Your task to perform on an android device: Go to eBay Image 0: 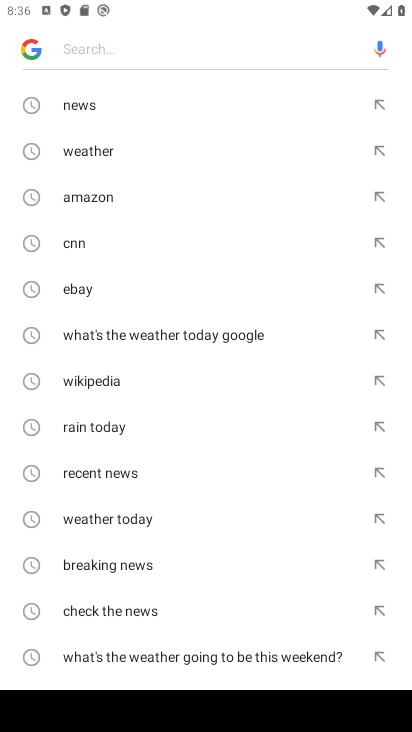
Step 0: press back button
Your task to perform on an android device: Go to eBay Image 1: 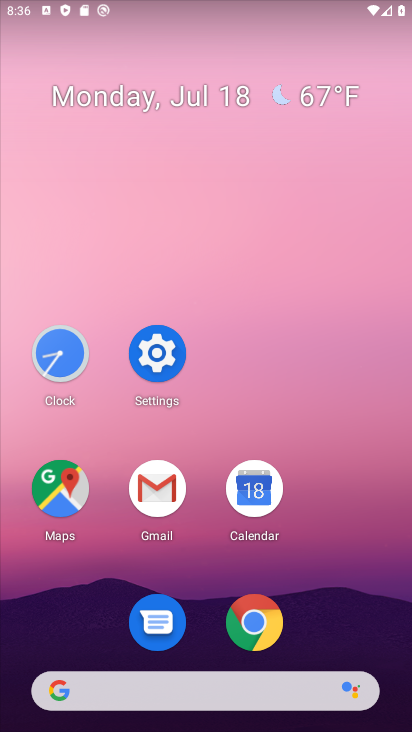
Step 1: click (246, 619)
Your task to perform on an android device: Go to eBay Image 2: 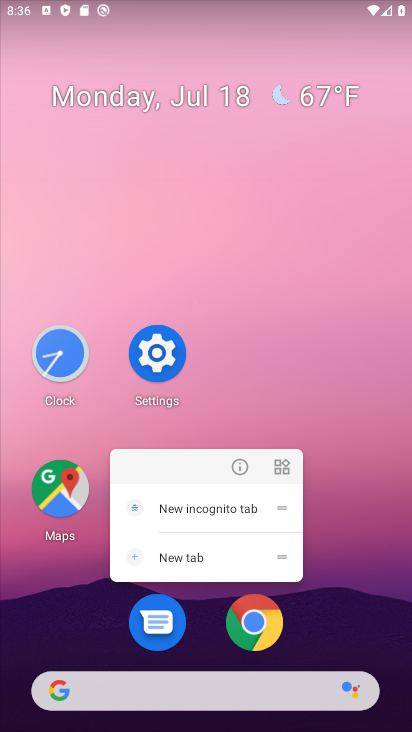
Step 2: click (247, 615)
Your task to perform on an android device: Go to eBay Image 3: 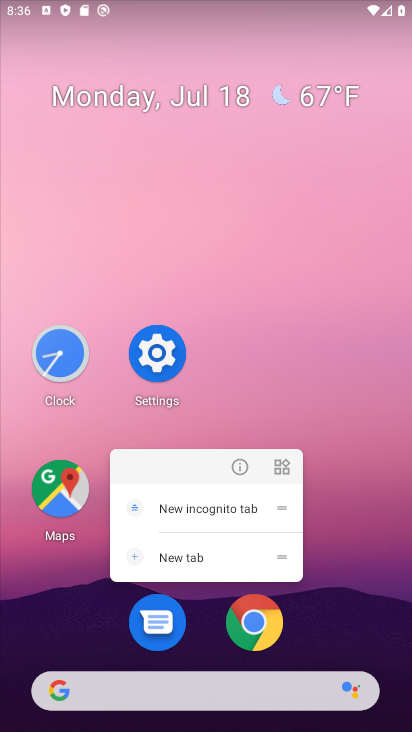
Step 3: click (247, 616)
Your task to perform on an android device: Go to eBay Image 4: 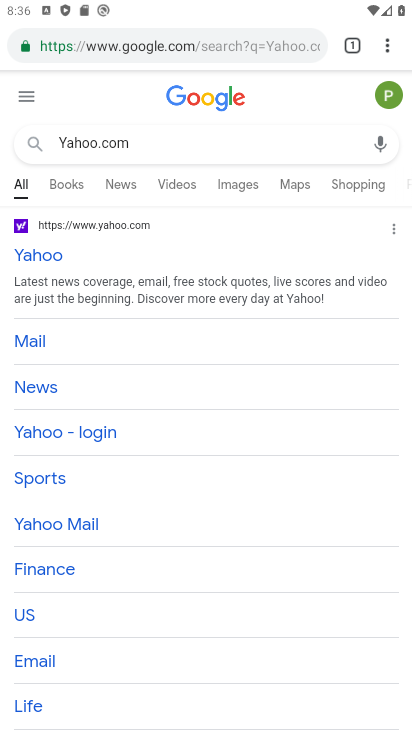
Step 4: click (313, 41)
Your task to perform on an android device: Go to eBay Image 5: 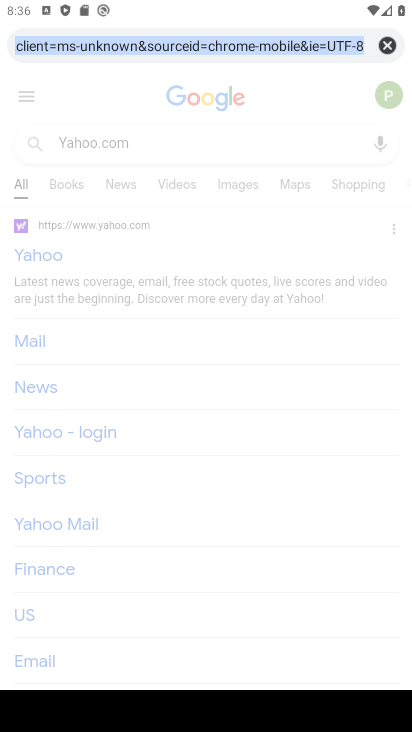
Step 5: click (383, 41)
Your task to perform on an android device: Go to eBay Image 6: 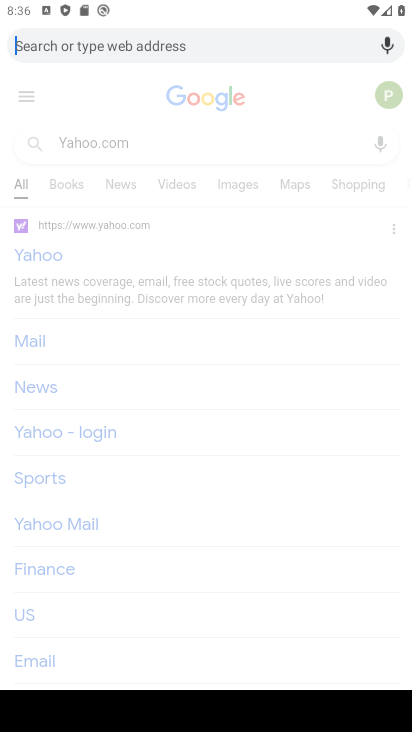
Step 6: type "eBay"
Your task to perform on an android device: Go to eBay Image 7: 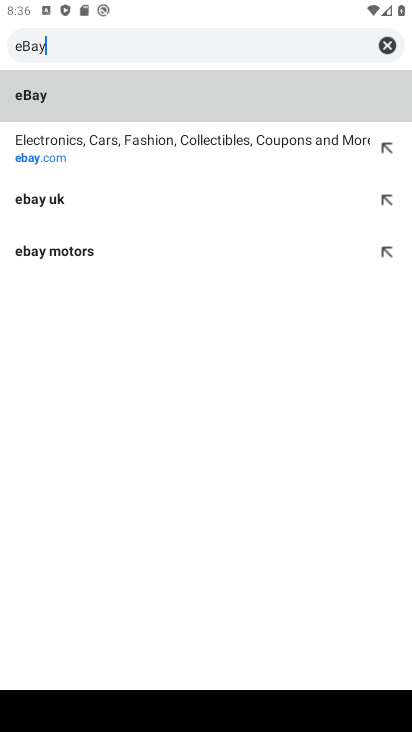
Step 7: click (40, 95)
Your task to perform on an android device: Go to eBay Image 8: 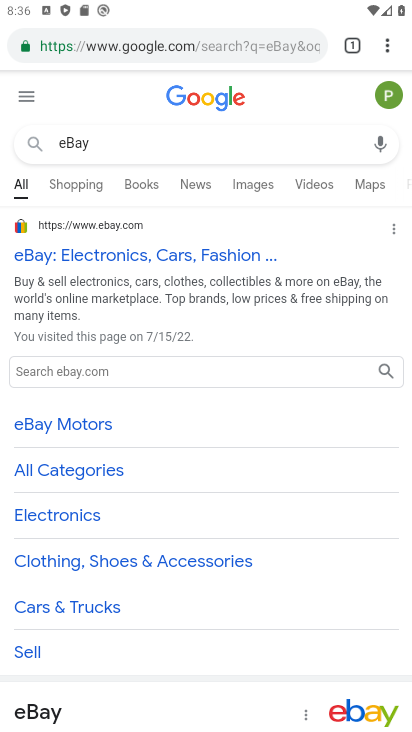
Step 8: task complete